Your task to perform on an android device: clear all cookies in the chrome app Image 0: 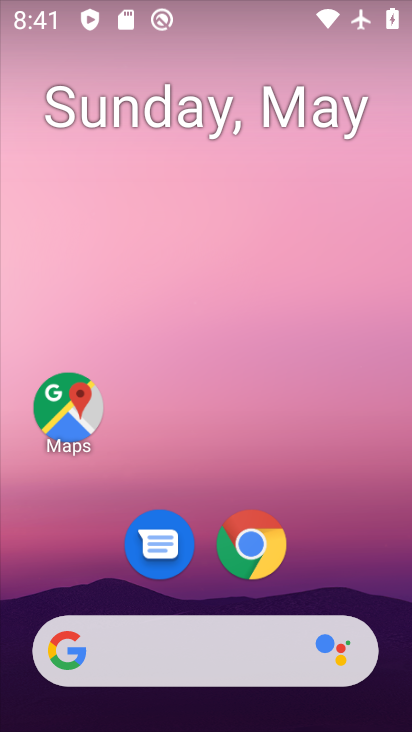
Step 0: drag from (319, 557) to (234, 0)
Your task to perform on an android device: clear all cookies in the chrome app Image 1: 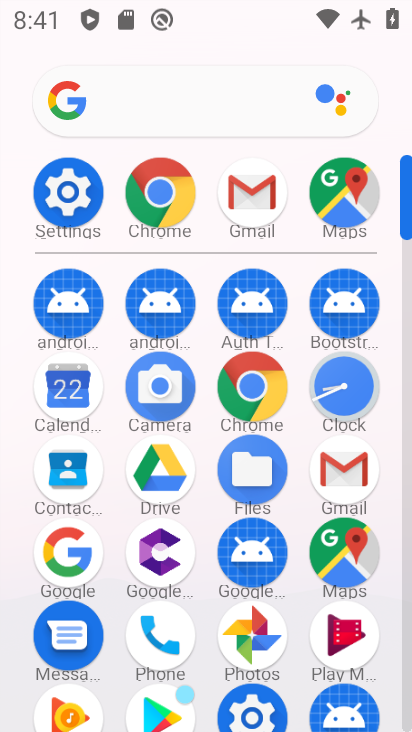
Step 1: click (253, 387)
Your task to perform on an android device: clear all cookies in the chrome app Image 2: 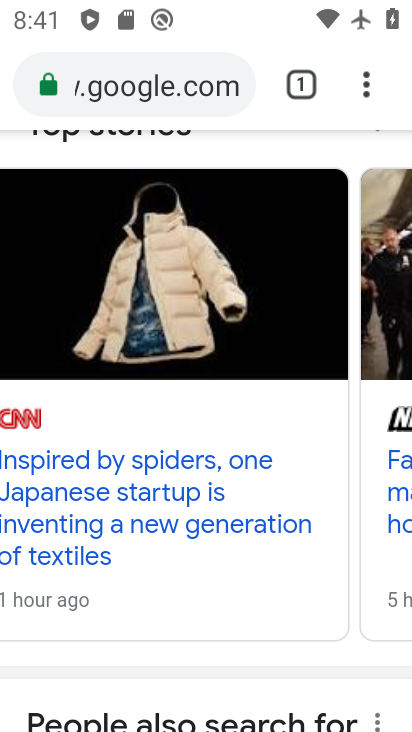
Step 2: drag from (363, 81) to (125, 582)
Your task to perform on an android device: clear all cookies in the chrome app Image 3: 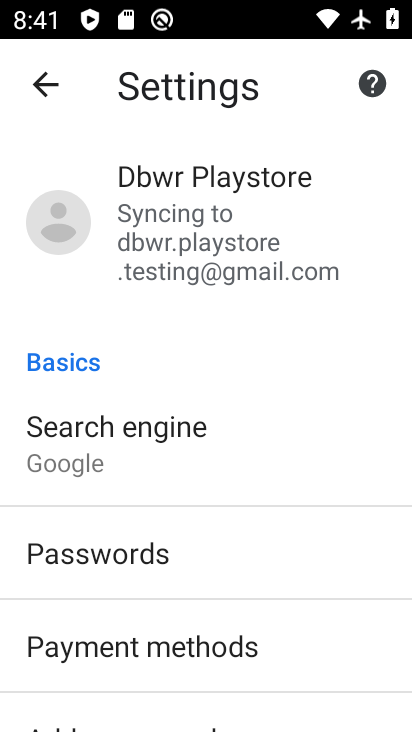
Step 3: drag from (202, 550) to (267, 123)
Your task to perform on an android device: clear all cookies in the chrome app Image 4: 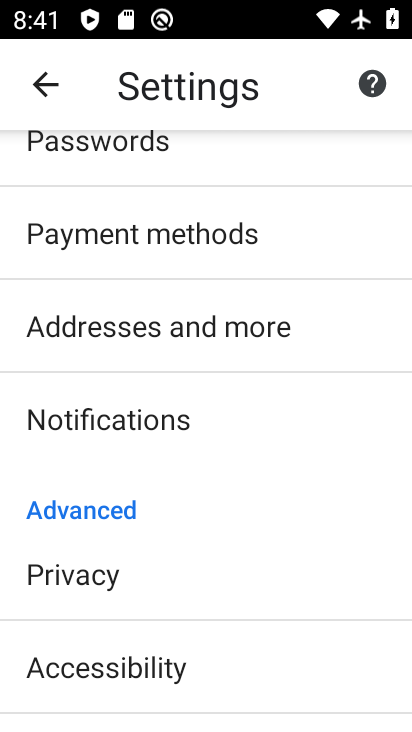
Step 4: click (125, 582)
Your task to perform on an android device: clear all cookies in the chrome app Image 5: 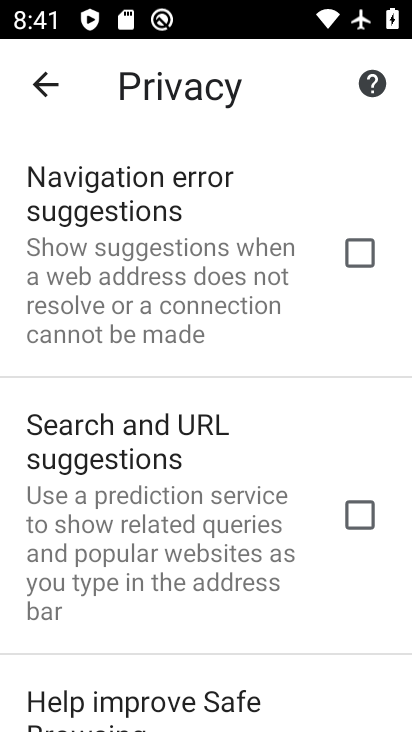
Step 5: drag from (242, 617) to (235, 144)
Your task to perform on an android device: clear all cookies in the chrome app Image 6: 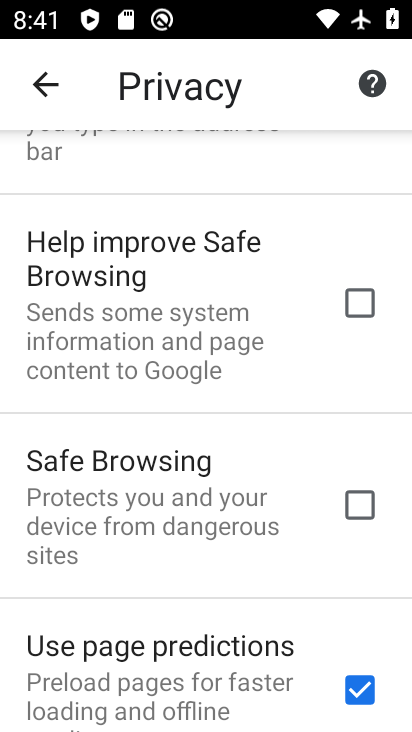
Step 6: drag from (221, 572) to (225, 137)
Your task to perform on an android device: clear all cookies in the chrome app Image 7: 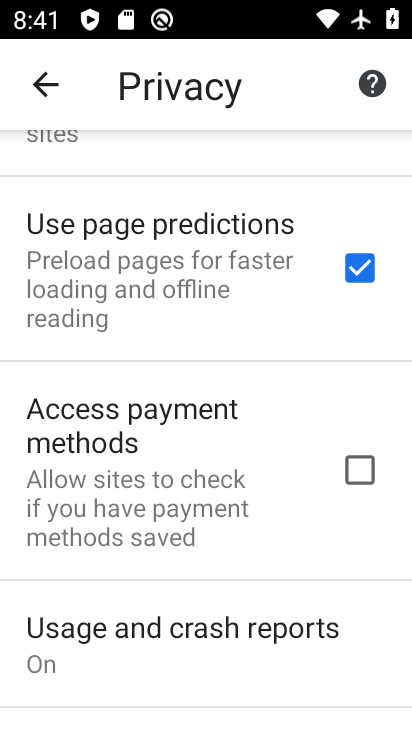
Step 7: drag from (221, 605) to (217, 148)
Your task to perform on an android device: clear all cookies in the chrome app Image 8: 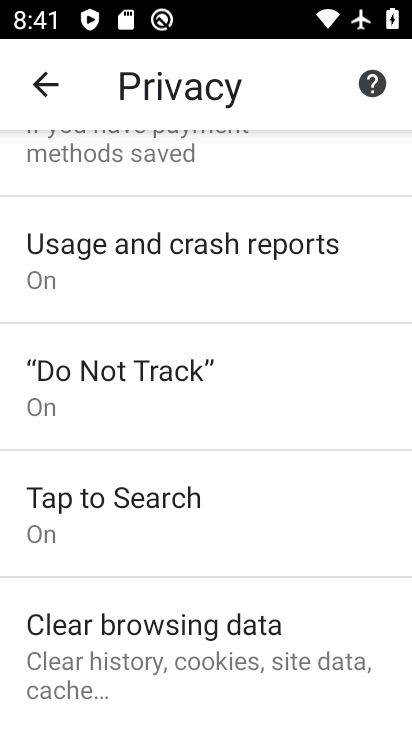
Step 8: click (156, 636)
Your task to perform on an android device: clear all cookies in the chrome app Image 9: 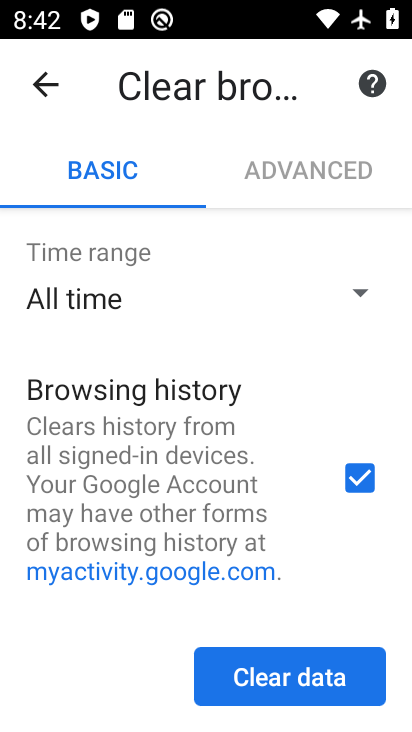
Step 9: click (366, 465)
Your task to perform on an android device: clear all cookies in the chrome app Image 10: 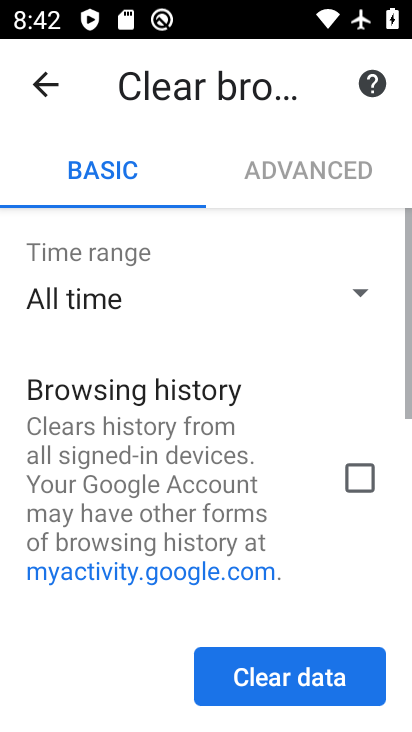
Step 10: drag from (175, 489) to (188, 158)
Your task to perform on an android device: clear all cookies in the chrome app Image 11: 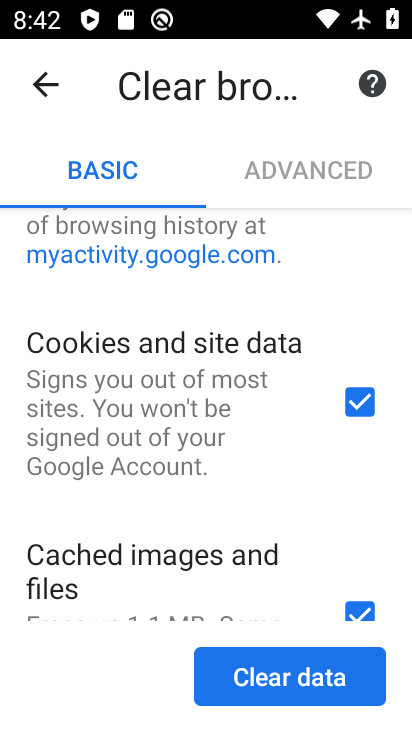
Step 11: drag from (183, 501) to (207, 223)
Your task to perform on an android device: clear all cookies in the chrome app Image 12: 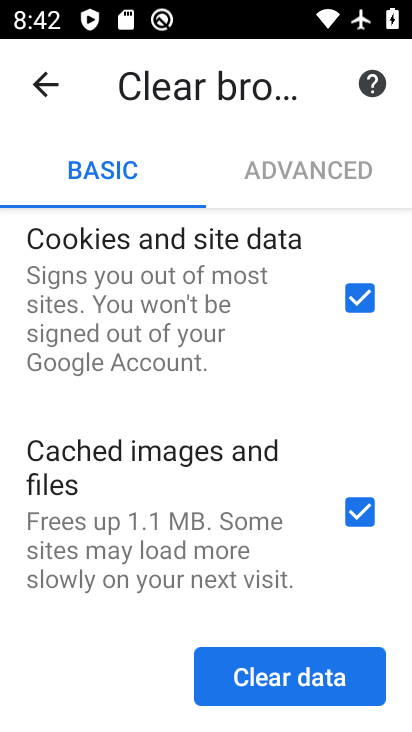
Step 12: click (270, 685)
Your task to perform on an android device: clear all cookies in the chrome app Image 13: 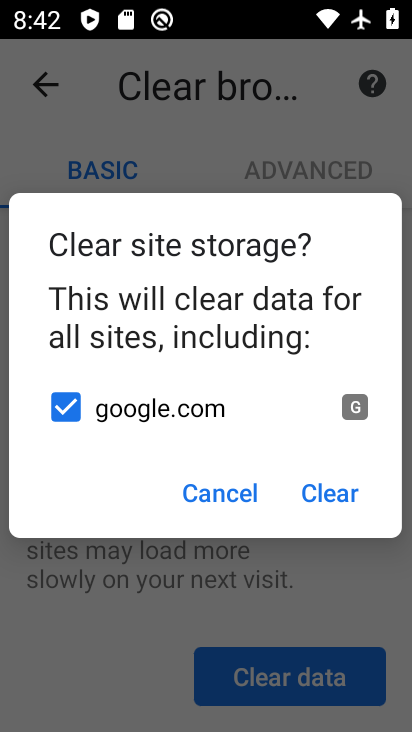
Step 13: click (328, 491)
Your task to perform on an android device: clear all cookies in the chrome app Image 14: 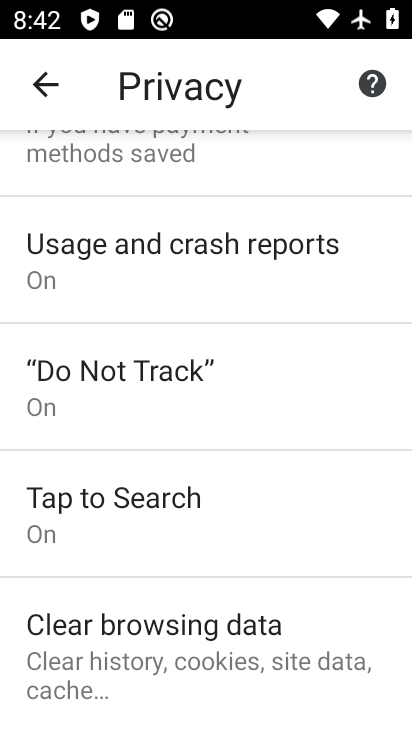
Step 14: task complete